Your task to perform on an android device: toggle pop-ups in chrome Image 0: 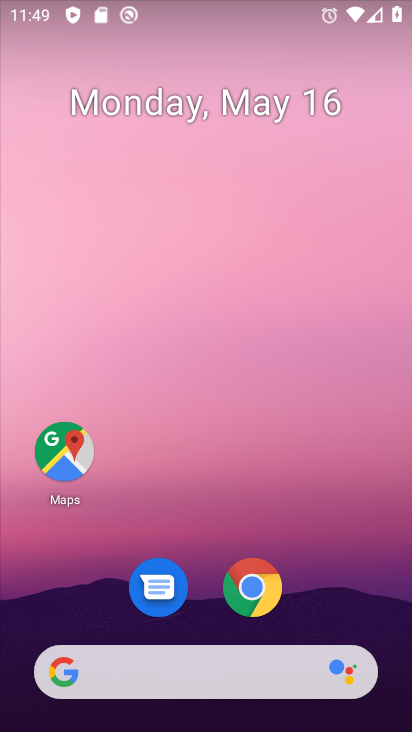
Step 0: drag from (353, 606) to (299, 14)
Your task to perform on an android device: toggle pop-ups in chrome Image 1: 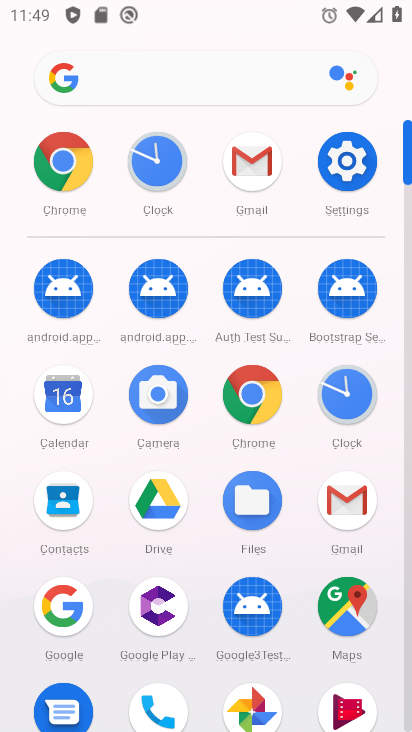
Step 1: click (70, 163)
Your task to perform on an android device: toggle pop-ups in chrome Image 2: 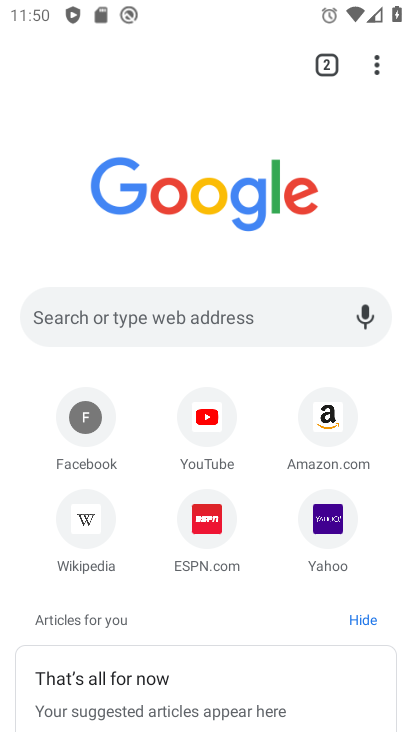
Step 2: click (376, 60)
Your task to perform on an android device: toggle pop-ups in chrome Image 3: 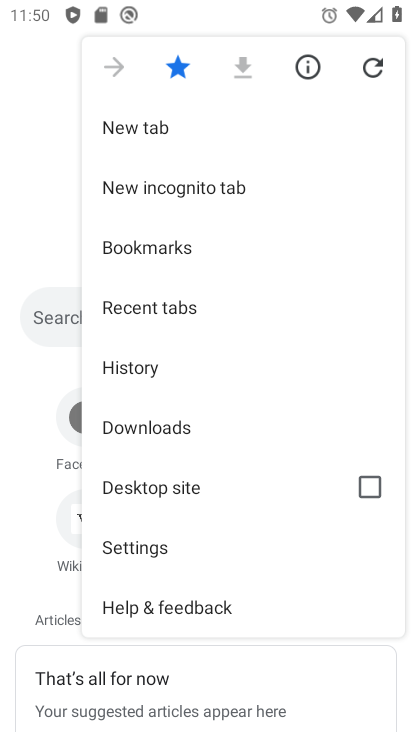
Step 3: click (186, 548)
Your task to perform on an android device: toggle pop-ups in chrome Image 4: 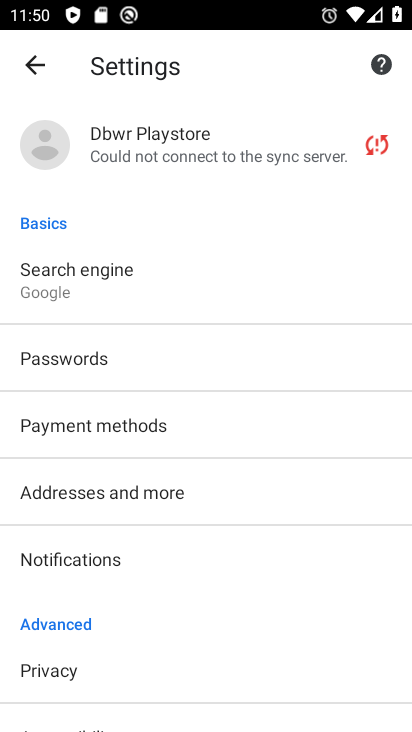
Step 4: drag from (144, 598) to (157, 262)
Your task to perform on an android device: toggle pop-ups in chrome Image 5: 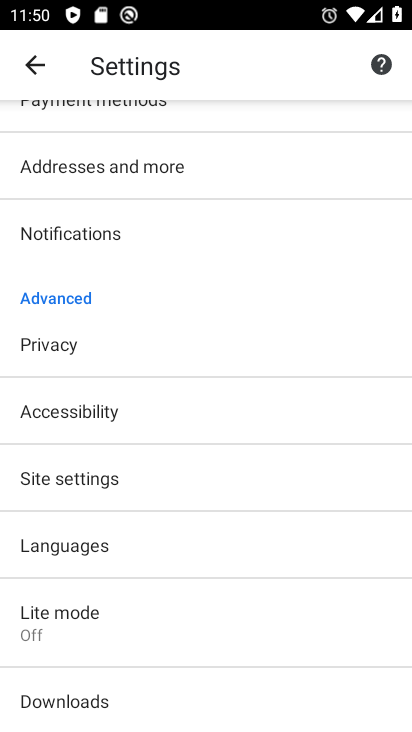
Step 5: click (152, 475)
Your task to perform on an android device: toggle pop-ups in chrome Image 6: 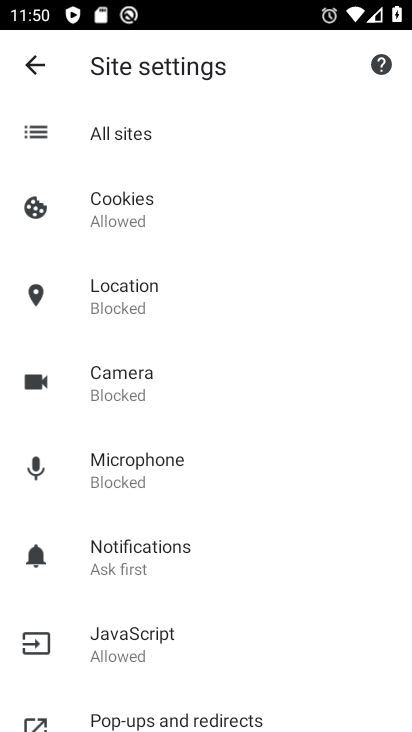
Step 6: click (217, 719)
Your task to perform on an android device: toggle pop-ups in chrome Image 7: 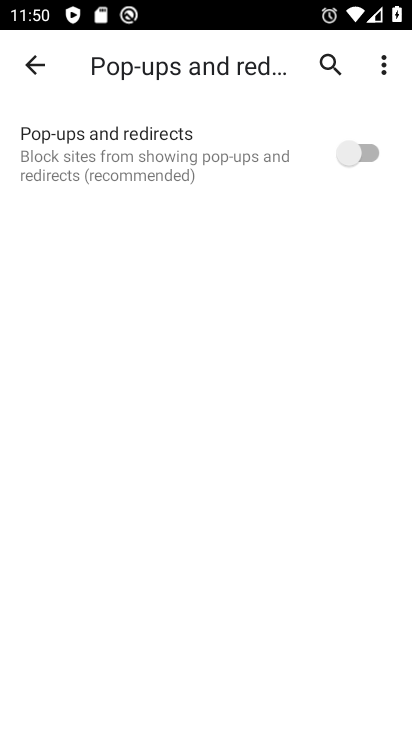
Step 7: click (340, 165)
Your task to perform on an android device: toggle pop-ups in chrome Image 8: 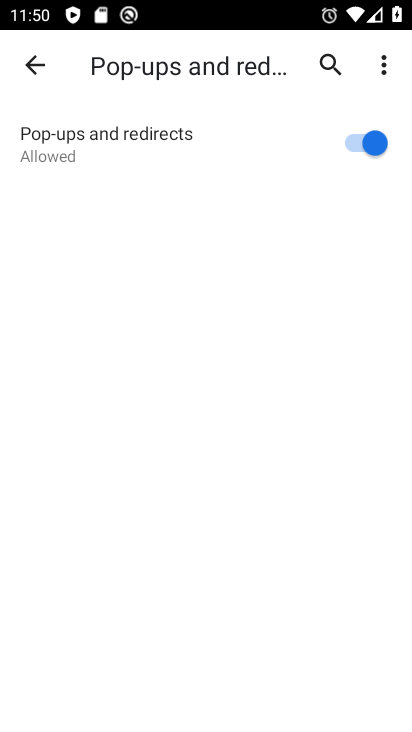
Step 8: task complete